Your task to perform on an android device: change notification settings in the gmail app Image 0: 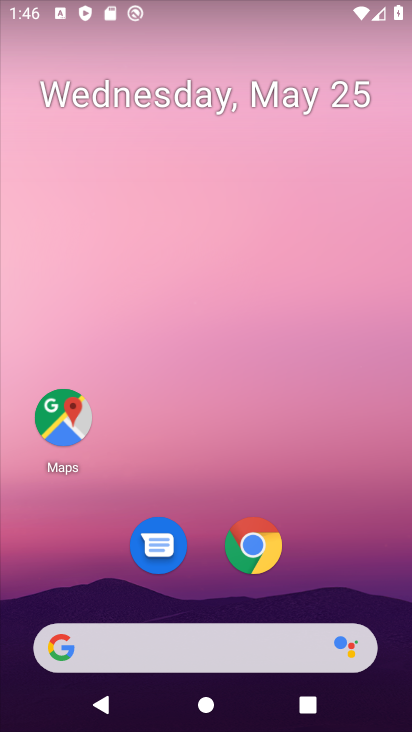
Step 0: drag from (355, 585) to (329, 99)
Your task to perform on an android device: change notification settings in the gmail app Image 1: 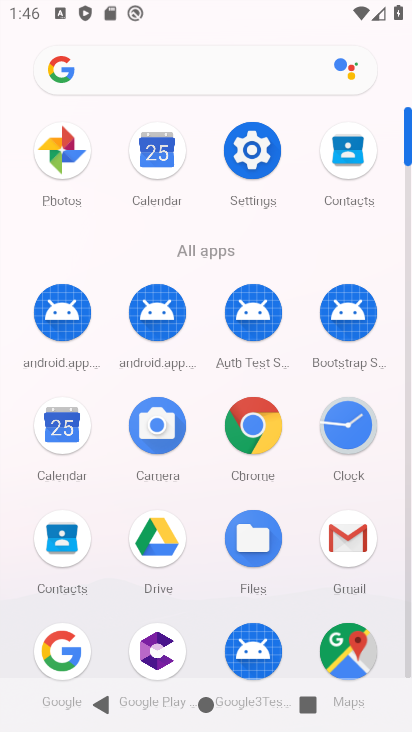
Step 1: click (350, 540)
Your task to perform on an android device: change notification settings in the gmail app Image 2: 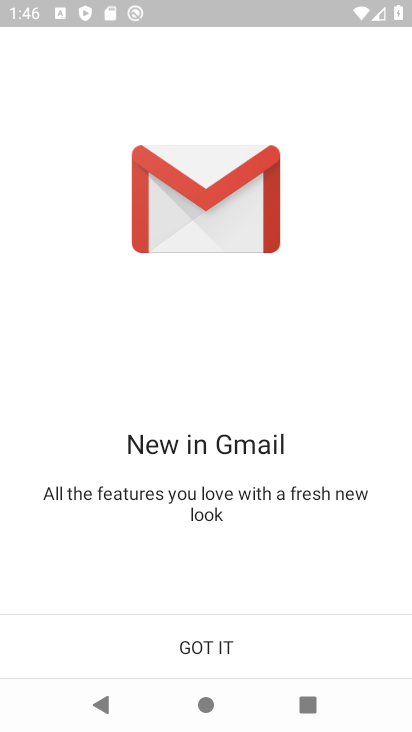
Step 2: task complete